Your task to perform on an android device: Open eBay Image 0: 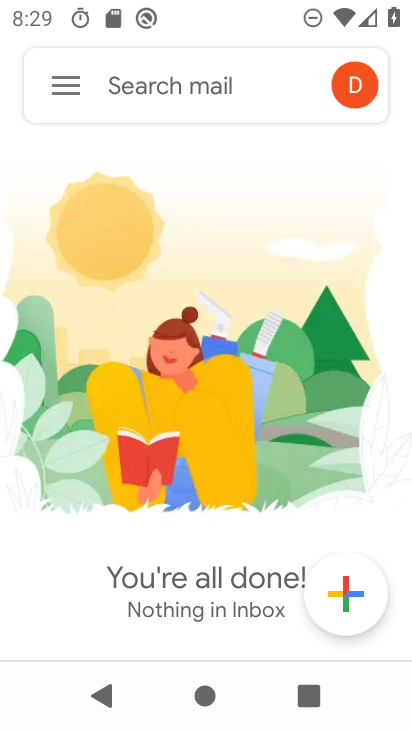
Step 0: press home button
Your task to perform on an android device: Open eBay Image 1: 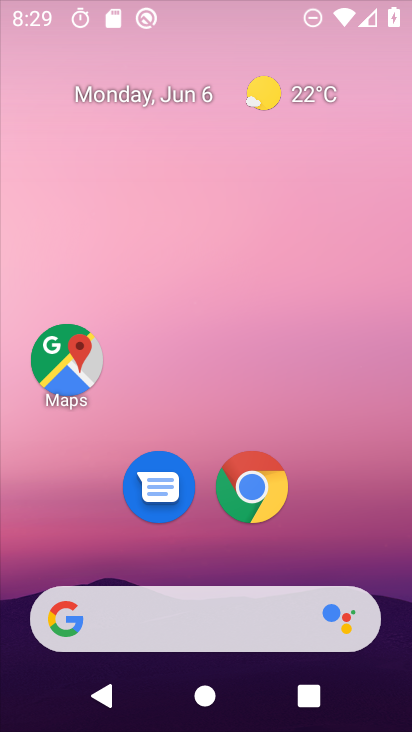
Step 1: drag from (394, 609) to (346, 45)
Your task to perform on an android device: Open eBay Image 2: 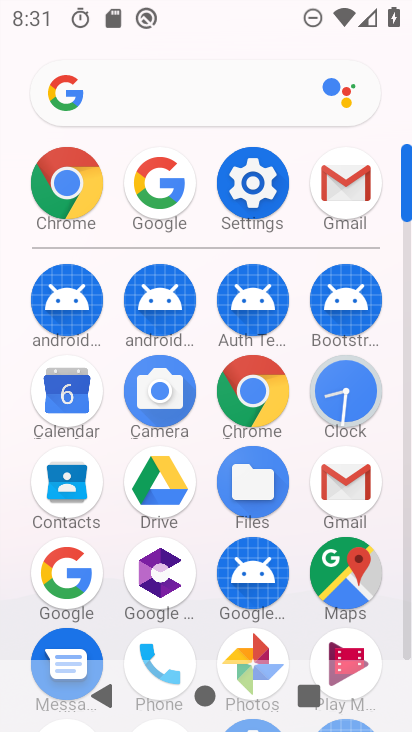
Step 2: click (78, 583)
Your task to perform on an android device: Open eBay Image 3: 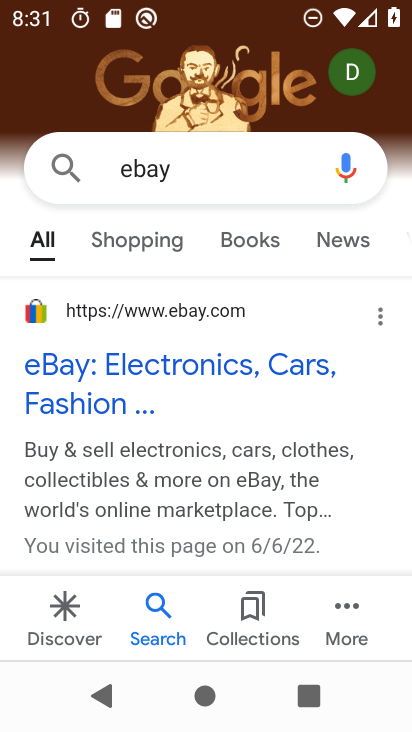
Step 3: task complete